Your task to perform on an android device: Is it going to rain today? Image 0: 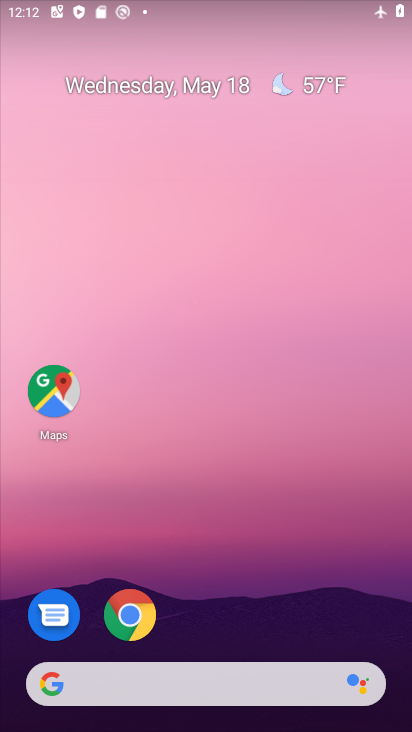
Step 0: drag from (323, 644) to (326, 84)
Your task to perform on an android device: Is it going to rain today? Image 1: 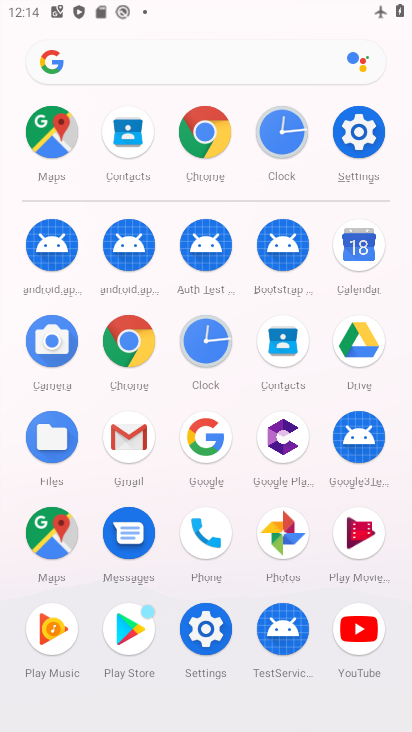
Step 1: click (212, 448)
Your task to perform on an android device: Is it going to rain today? Image 2: 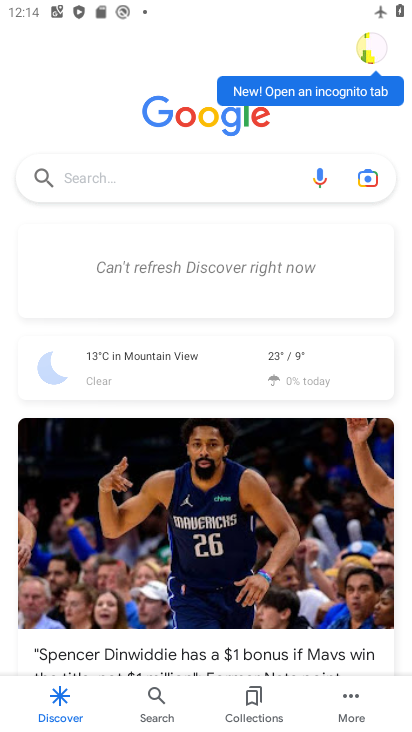
Step 2: click (101, 169)
Your task to perform on an android device: Is it going to rain today? Image 3: 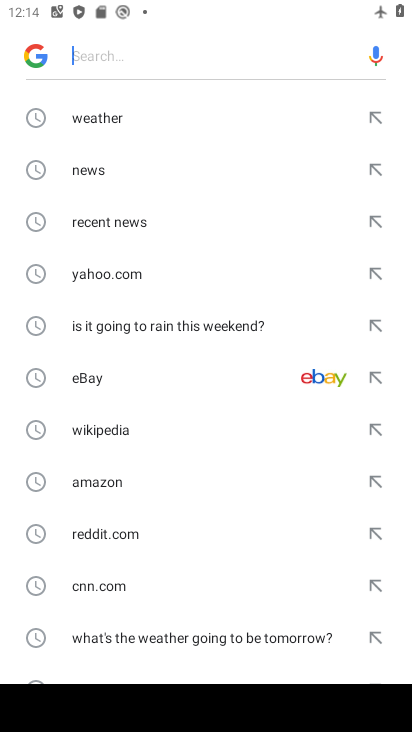
Step 3: drag from (198, 608) to (265, 237)
Your task to perform on an android device: Is it going to rain today? Image 4: 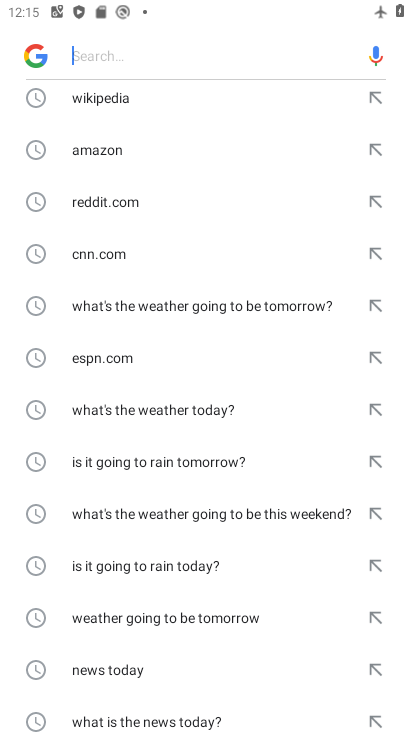
Step 4: click (187, 716)
Your task to perform on an android device: Is it going to rain today? Image 5: 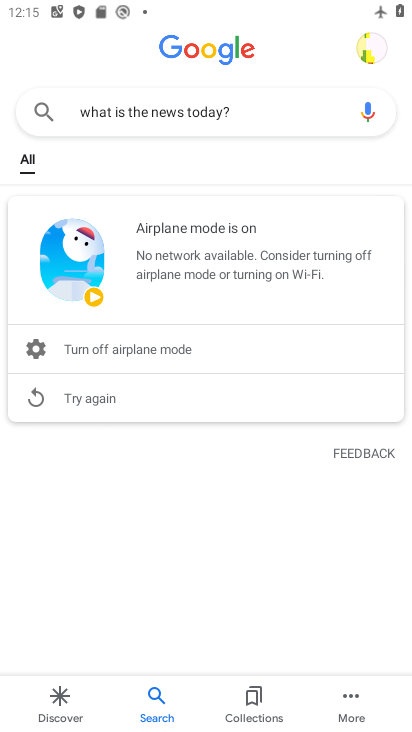
Step 5: task complete